Your task to perform on an android device: Open Yahoo.com Image 0: 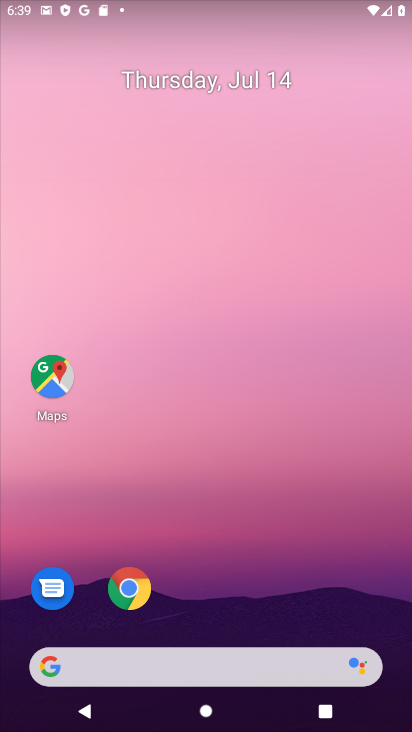
Step 0: click (134, 586)
Your task to perform on an android device: Open Yahoo.com Image 1: 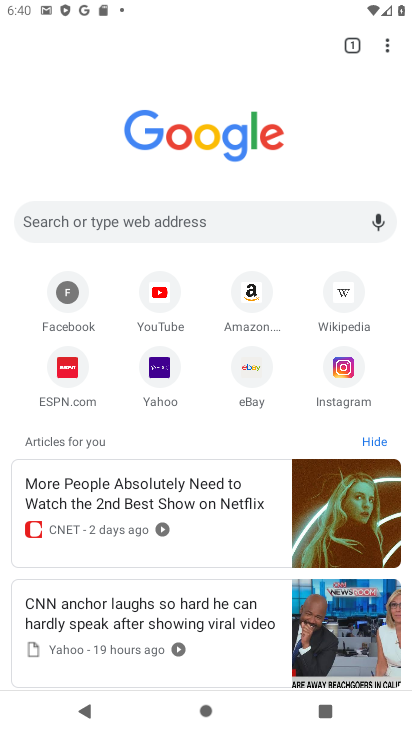
Step 1: click (158, 375)
Your task to perform on an android device: Open Yahoo.com Image 2: 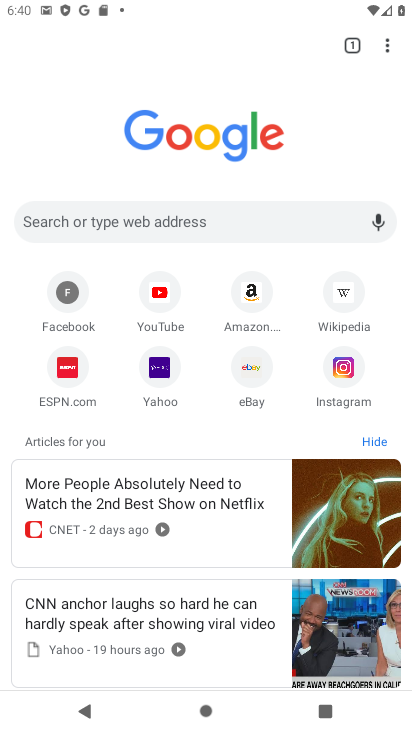
Step 2: click (158, 375)
Your task to perform on an android device: Open Yahoo.com Image 3: 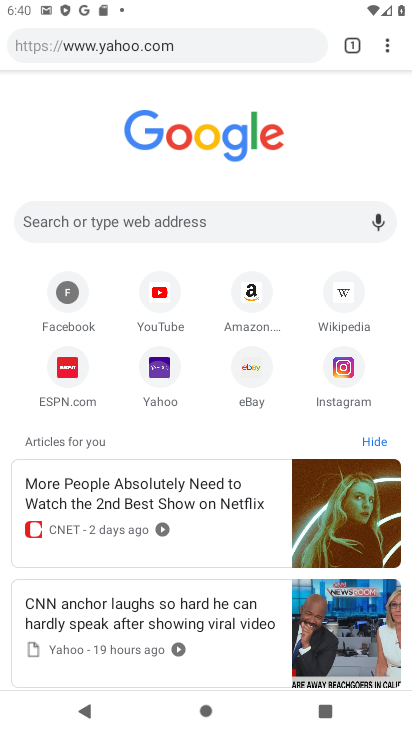
Step 3: click (158, 375)
Your task to perform on an android device: Open Yahoo.com Image 4: 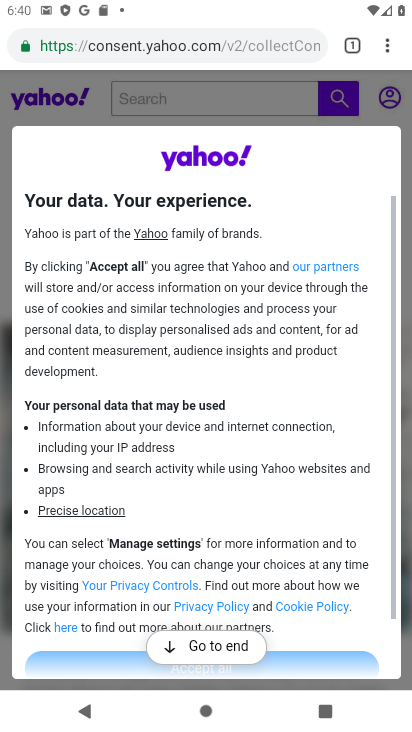
Step 4: click (198, 639)
Your task to perform on an android device: Open Yahoo.com Image 5: 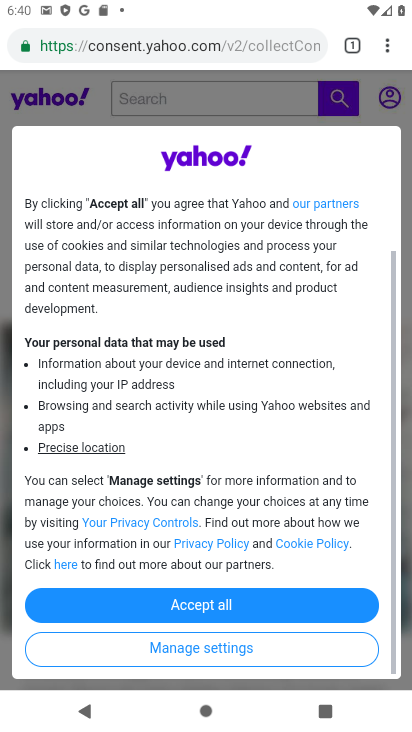
Step 5: click (195, 606)
Your task to perform on an android device: Open Yahoo.com Image 6: 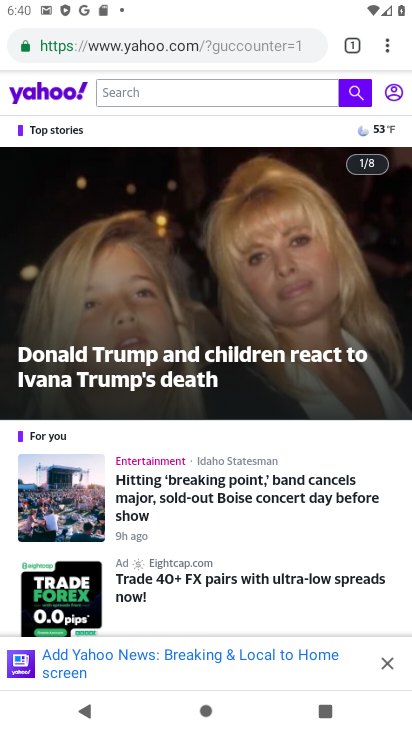
Step 6: task complete